Your task to perform on an android device: Open notification settings Image 0: 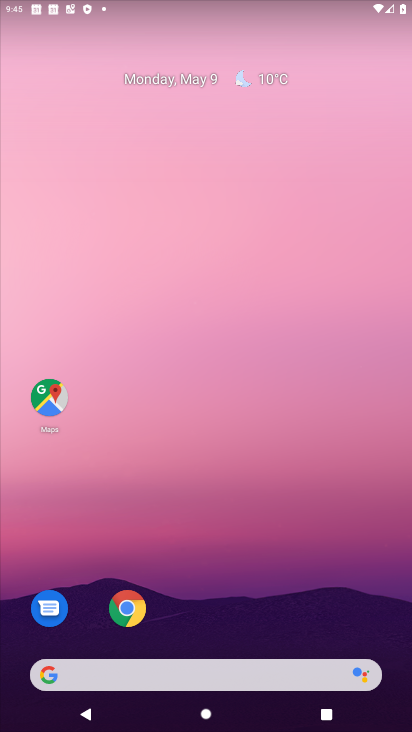
Step 0: drag from (265, 584) to (277, 3)
Your task to perform on an android device: Open notification settings Image 1: 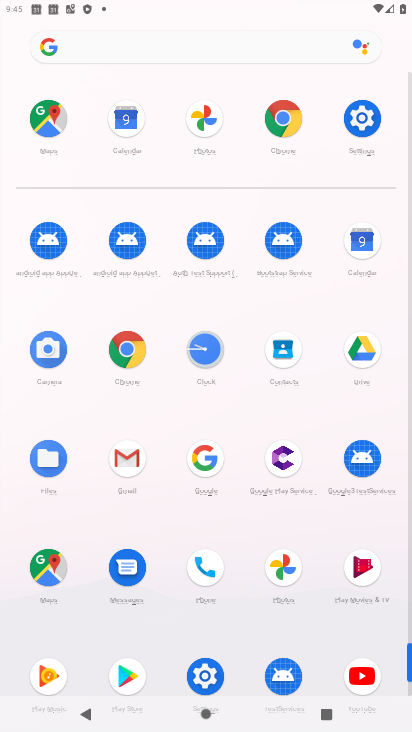
Step 1: click (356, 122)
Your task to perform on an android device: Open notification settings Image 2: 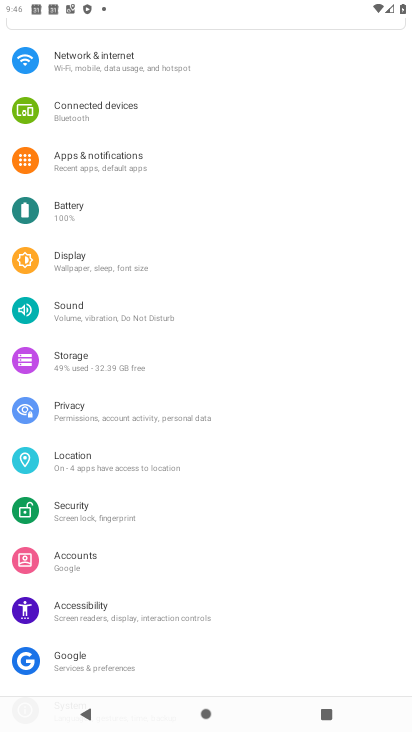
Step 2: click (109, 162)
Your task to perform on an android device: Open notification settings Image 3: 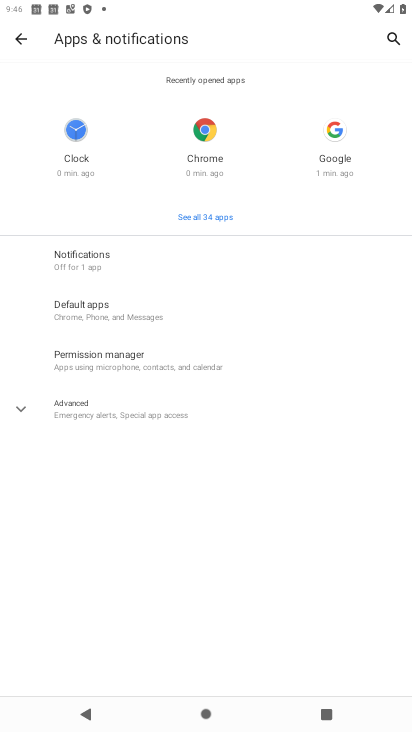
Step 3: click (70, 272)
Your task to perform on an android device: Open notification settings Image 4: 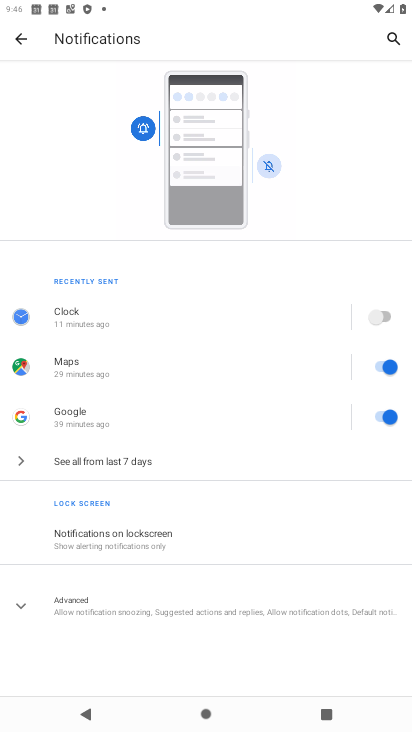
Step 4: task complete